Your task to perform on an android device: check data usage Image 0: 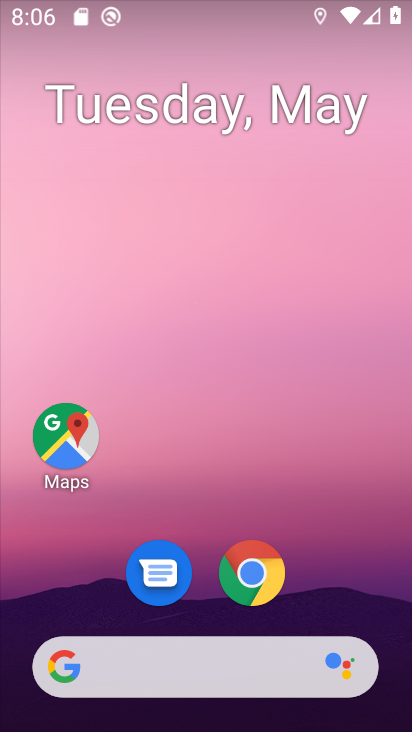
Step 0: drag from (377, 622) to (330, 167)
Your task to perform on an android device: check data usage Image 1: 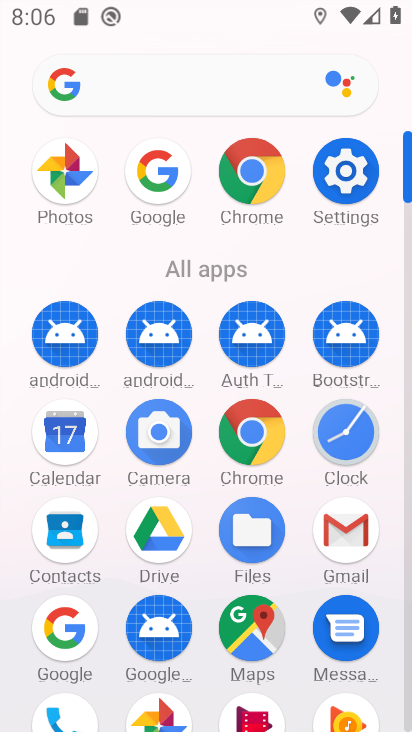
Step 1: click (343, 180)
Your task to perform on an android device: check data usage Image 2: 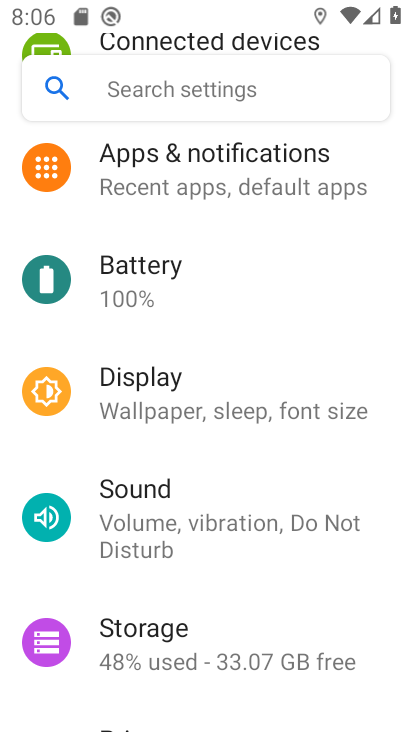
Step 2: drag from (360, 160) to (344, 496)
Your task to perform on an android device: check data usage Image 3: 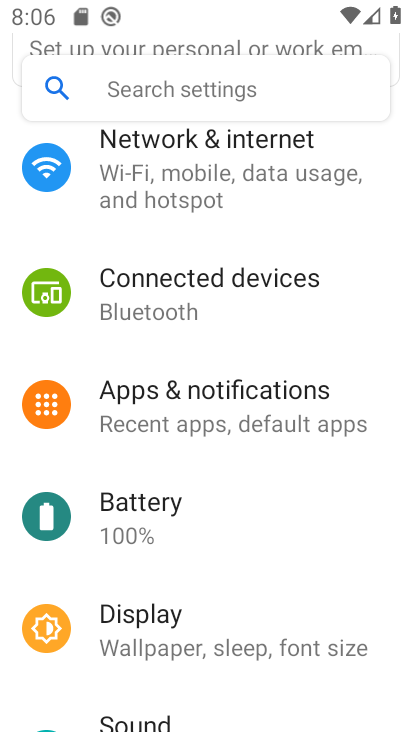
Step 3: click (180, 160)
Your task to perform on an android device: check data usage Image 4: 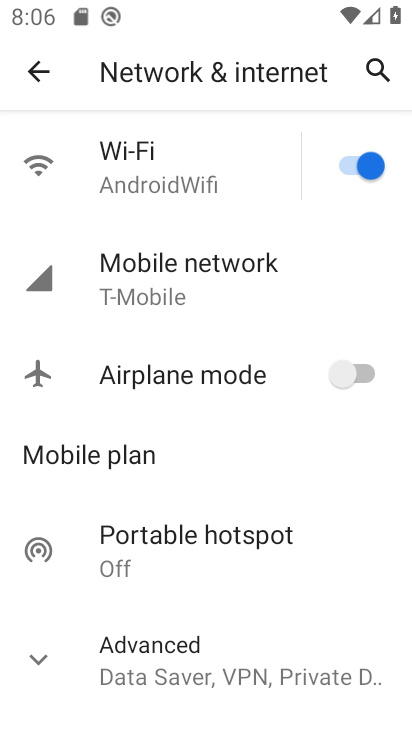
Step 4: click (146, 277)
Your task to perform on an android device: check data usage Image 5: 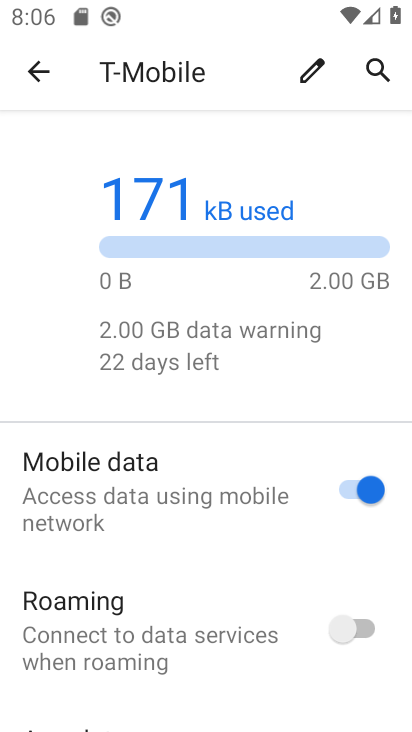
Step 5: task complete